Your task to perform on an android device: Open Google Image 0: 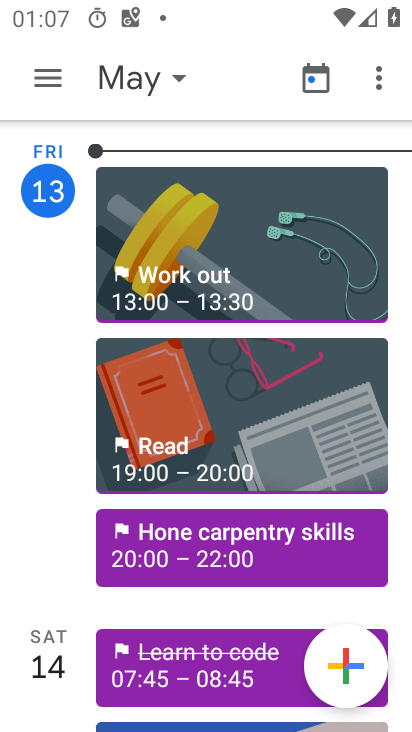
Step 0: press home button
Your task to perform on an android device: Open Google Image 1: 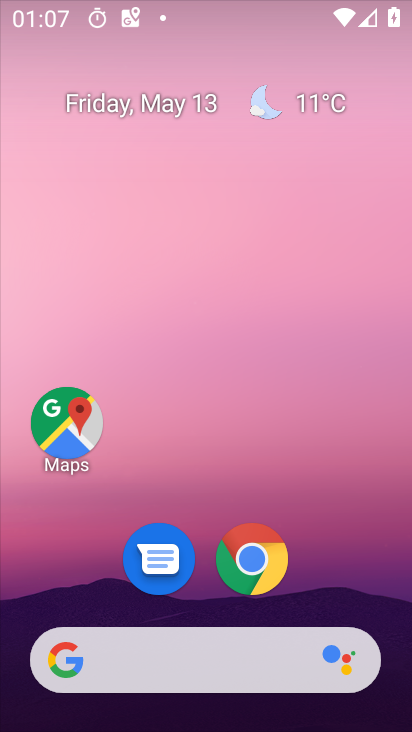
Step 1: drag from (222, 496) to (217, 94)
Your task to perform on an android device: Open Google Image 2: 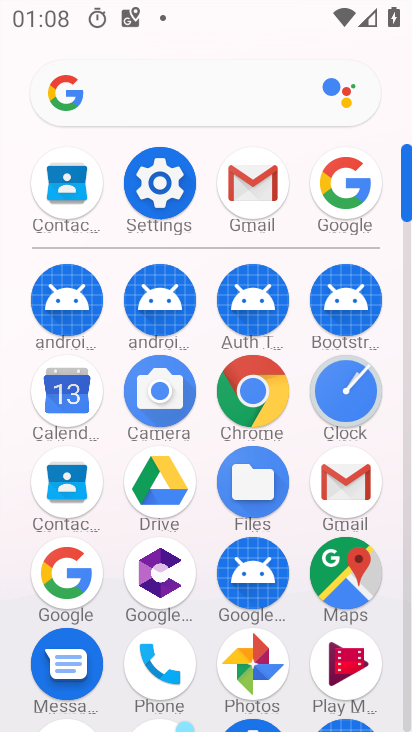
Step 2: click (61, 573)
Your task to perform on an android device: Open Google Image 3: 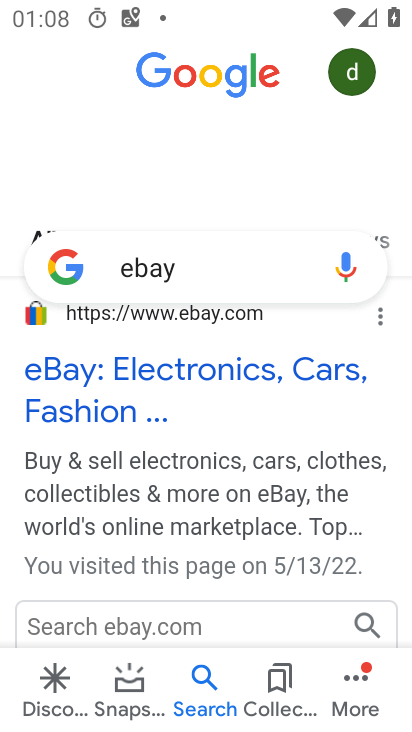
Step 3: task complete